Your task to perform on an android device: Open Youtube and go to the subscriptions tab Image 0: 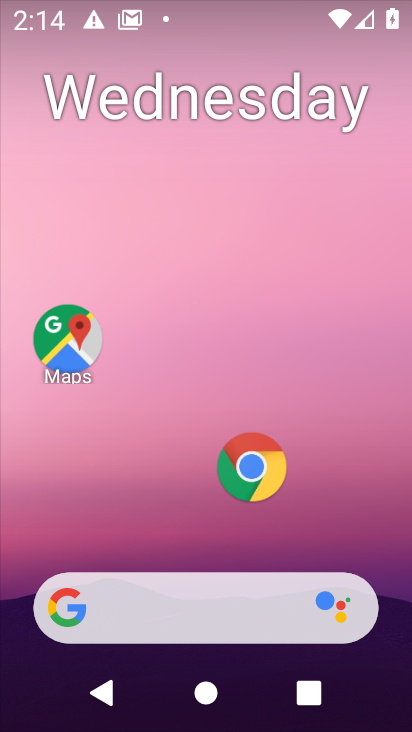
Step 0: drag from (157, 500) to (189, 233)
Your task to perform on an android device: Open Youtube and go to the subscriptions tab Image 1: 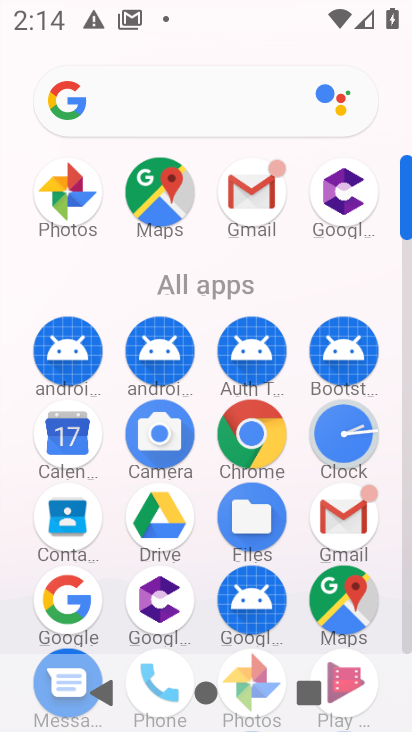
Step 1: drag from (252, 495) to (240, 68)
Your task to perform on an android device: Open Youtube and go to the subscriptions tab Image 2: 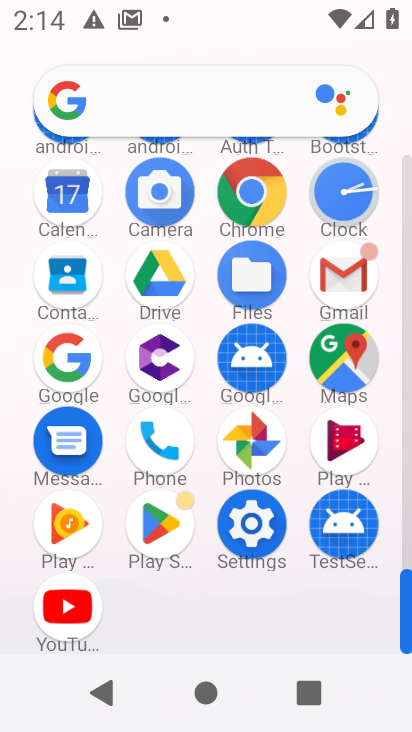
Step 2: click (94, 621)
Your task to perform on an android device: Open Youtube and go to the subscriptions tab Image 3: 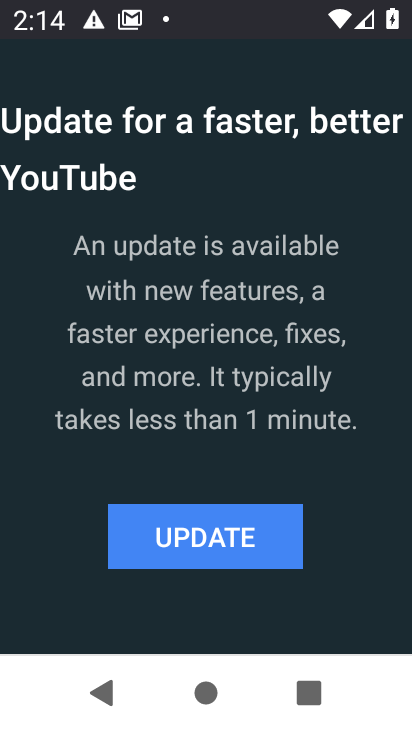
Step 3: task complete